Your task to perform on an android device: move a message to another label in the gmail app Image 0: 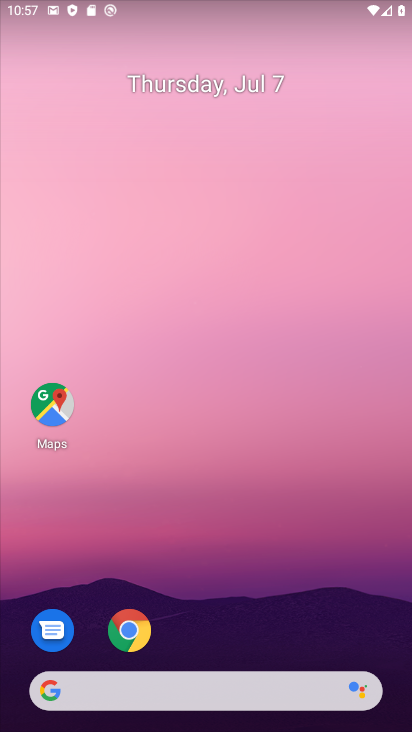
Step 0: drag from (376, 645) to (274, 4)
Your task to perform on an android device: move a message to another label in the gmail app Image 1: 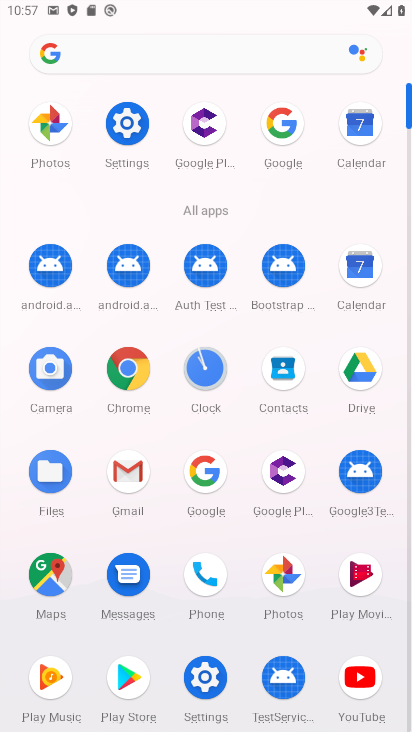
Step 1: click (125, 477)
Your task to perform on an android device: move a message to another label in the gmail app Image 2: 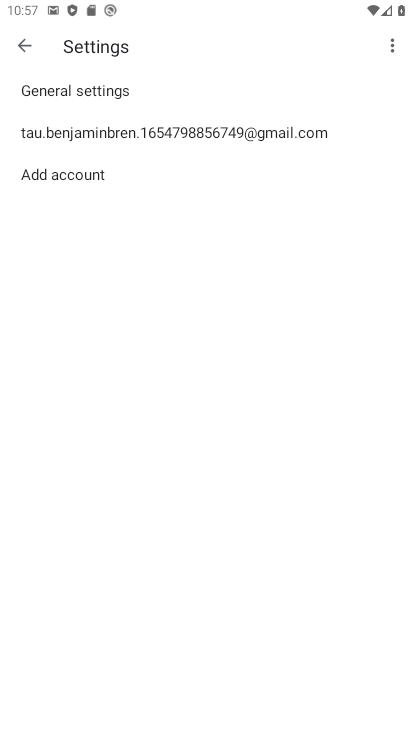
Step 2: press back button
Your task to perform on an android device: move a message to another label in the gmail app Image 3: 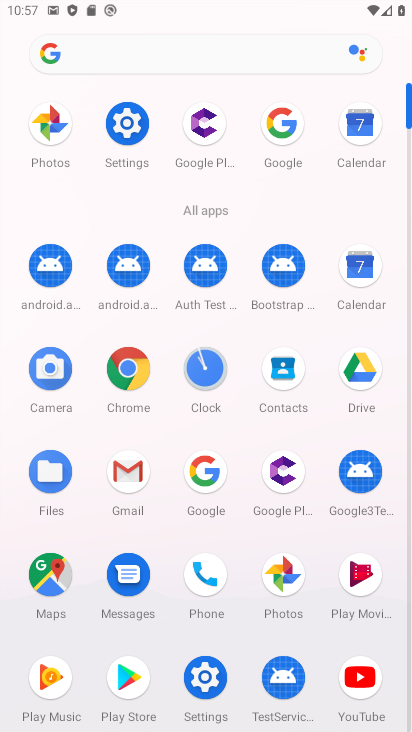
Step 3: click (133, 464)
Your task to perform on an android device: move a message to another label in the gmail app Image 4: 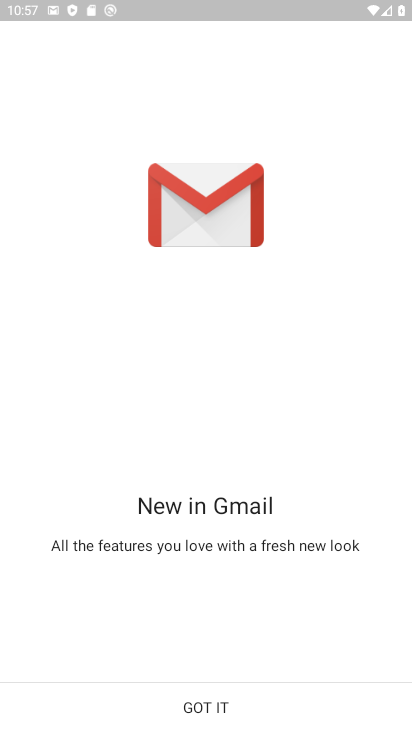
Step 4: click (199, 700)
Your task to perform on an android device: move a message to another label in the gmail app Image 5: 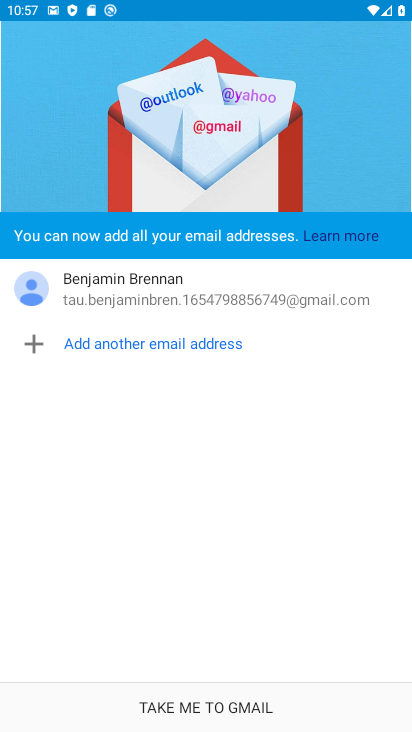
Step 5: click (199, 700)
Your task to perform on an android device: move a message to another label in the gmail app Image 6: 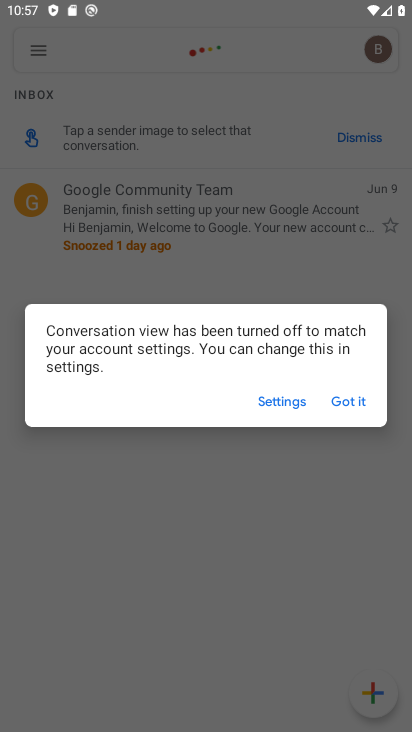
Step 6: click (335, 408)
Your task to perform on an android device: move a message to another label in the gmail app Image 7: 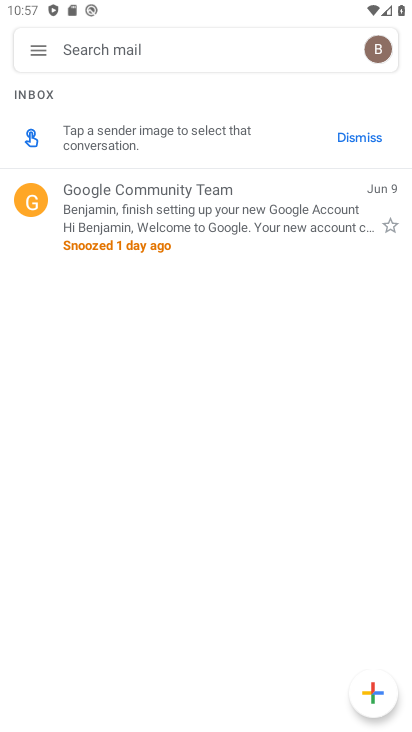
Step 7: task complete